Your task to perform on an android device: Search for apple airpods pro on bestbuy, select the first entry, and add it to the cart. Image 0: 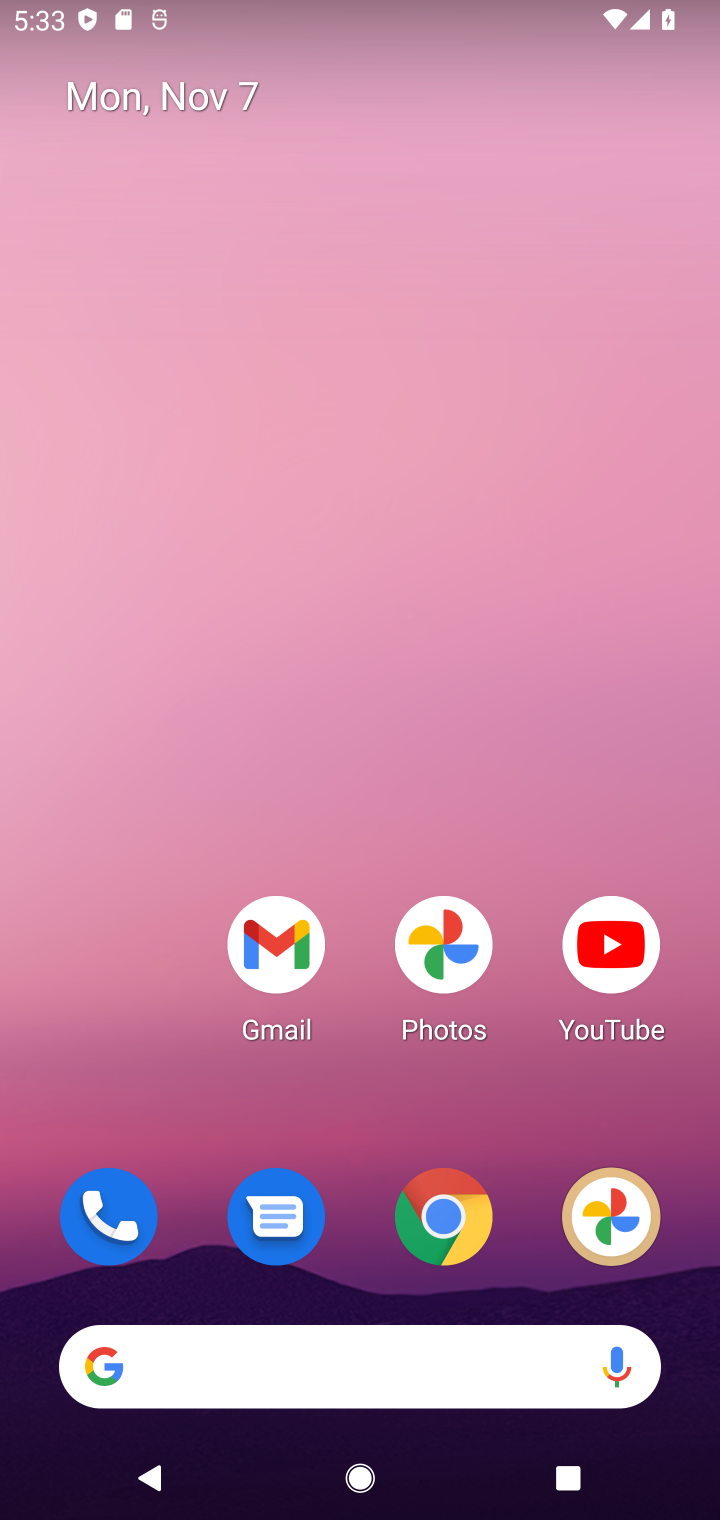
Step 0: drag from (350, 1103) to (413, 112)
Your task to perform on an android device: Search for apple airpods pro on bestbuy, select the first entry, and add it to the cart. Image 1: 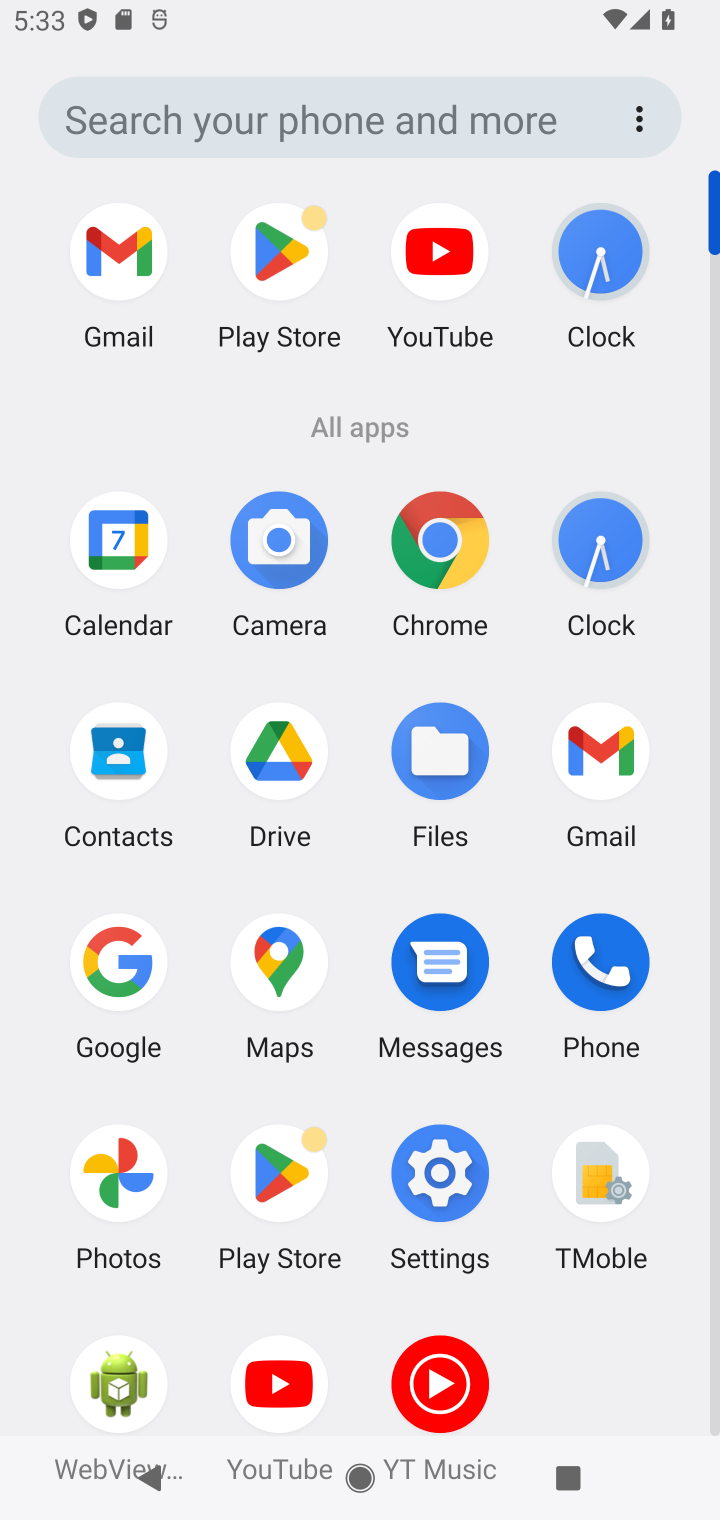
Step 1: click (444, 528)
Your task to perform on an android device: Search for apple airpods pro on bestbuy, select the first entry, and add it to the cart. Image 2: 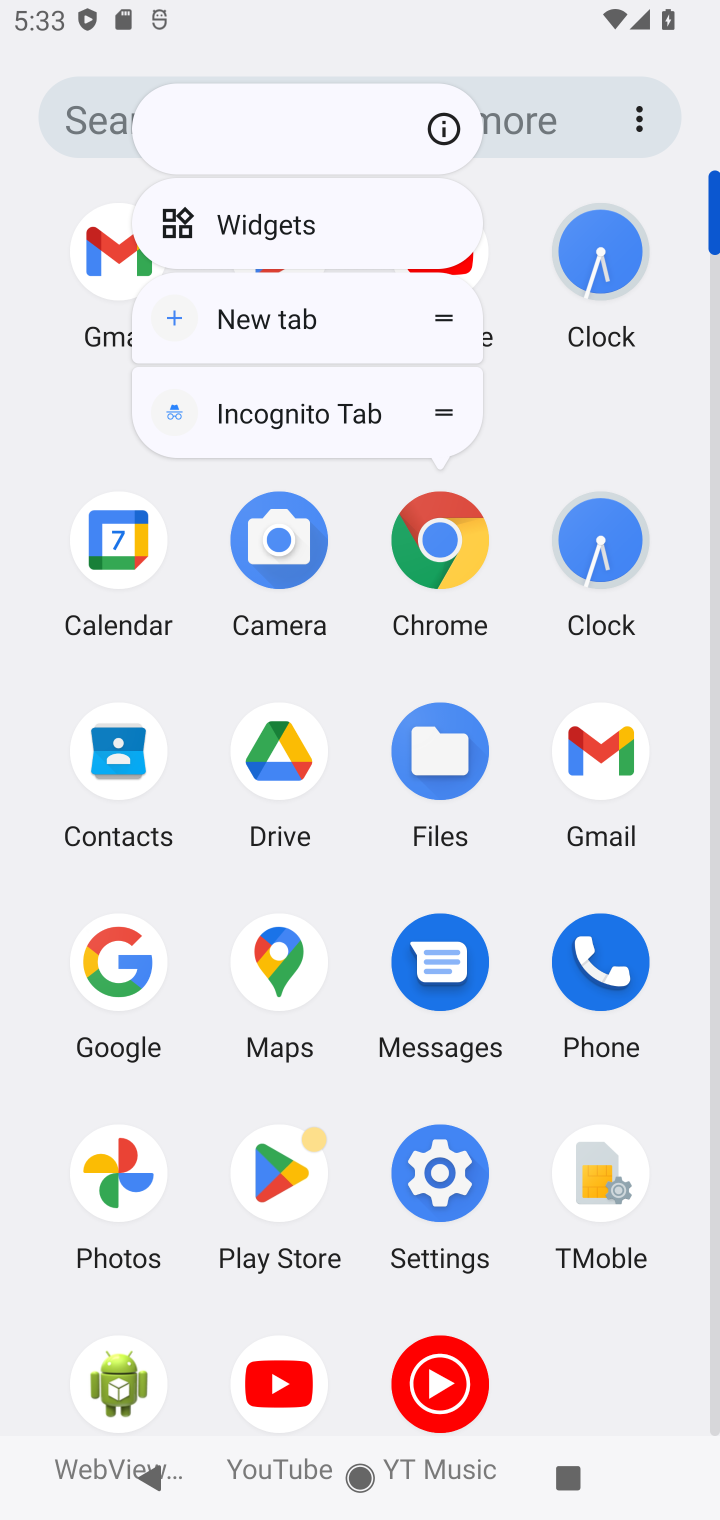
Step 2: click (431, 534)
Your task to perform on an android device: Search for apple airpods pro on bestbuy, select the first entry, and add it to the cart. Image 3: 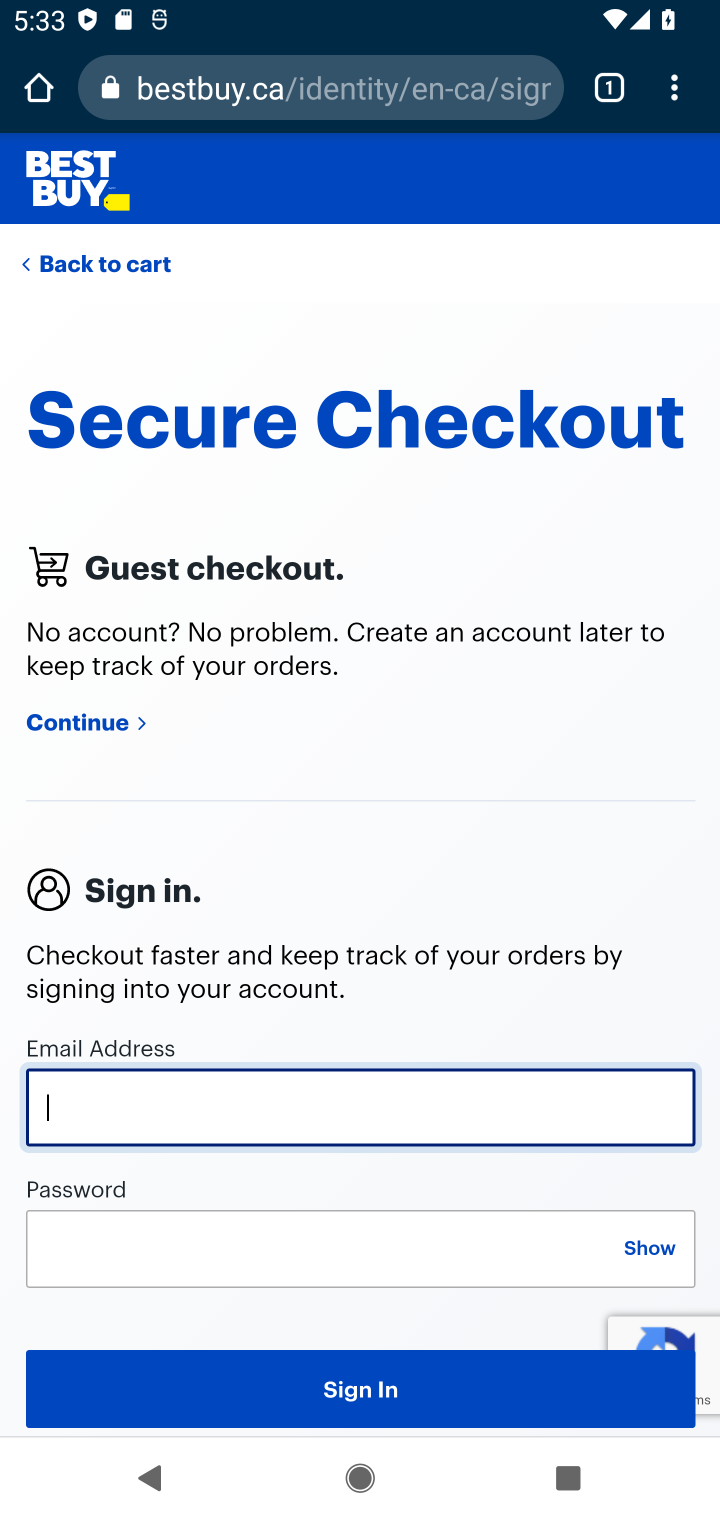
Step 3: click (458, 91)
Your task to perform on an android device: Search for apple airpods pro on bestbuy, select the first entry, and add it to the cart. Image 4: 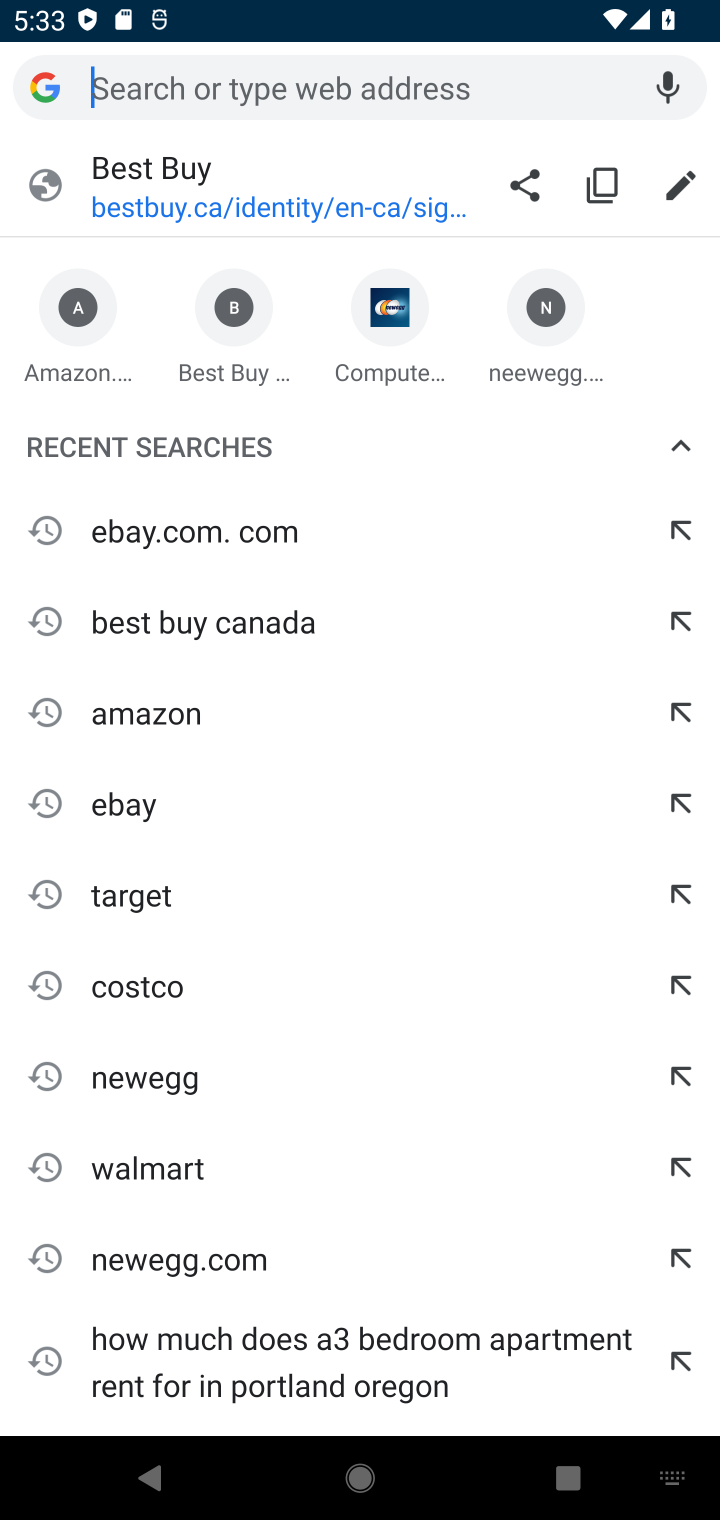
Step 4: type "bestbuy.com"
Your task to perform on an android device: Search for apple airpods pro on bestbuy, select the first entry, and add it to the cart. Image 5: 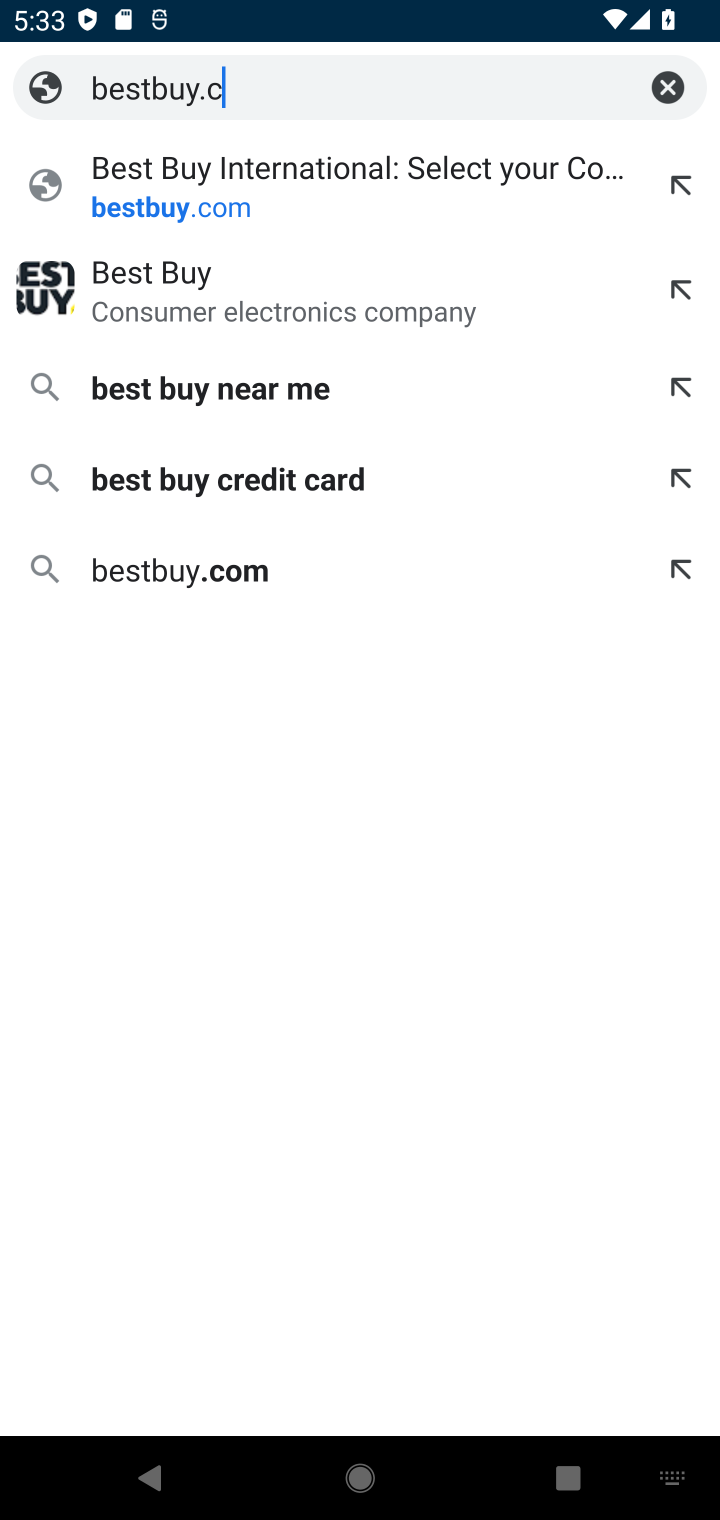
Step 5: press enter
Your task to perform on an android device: Search for apple airpods pro on bestbuy, select the first entry, and add it to the cart. Image 6: 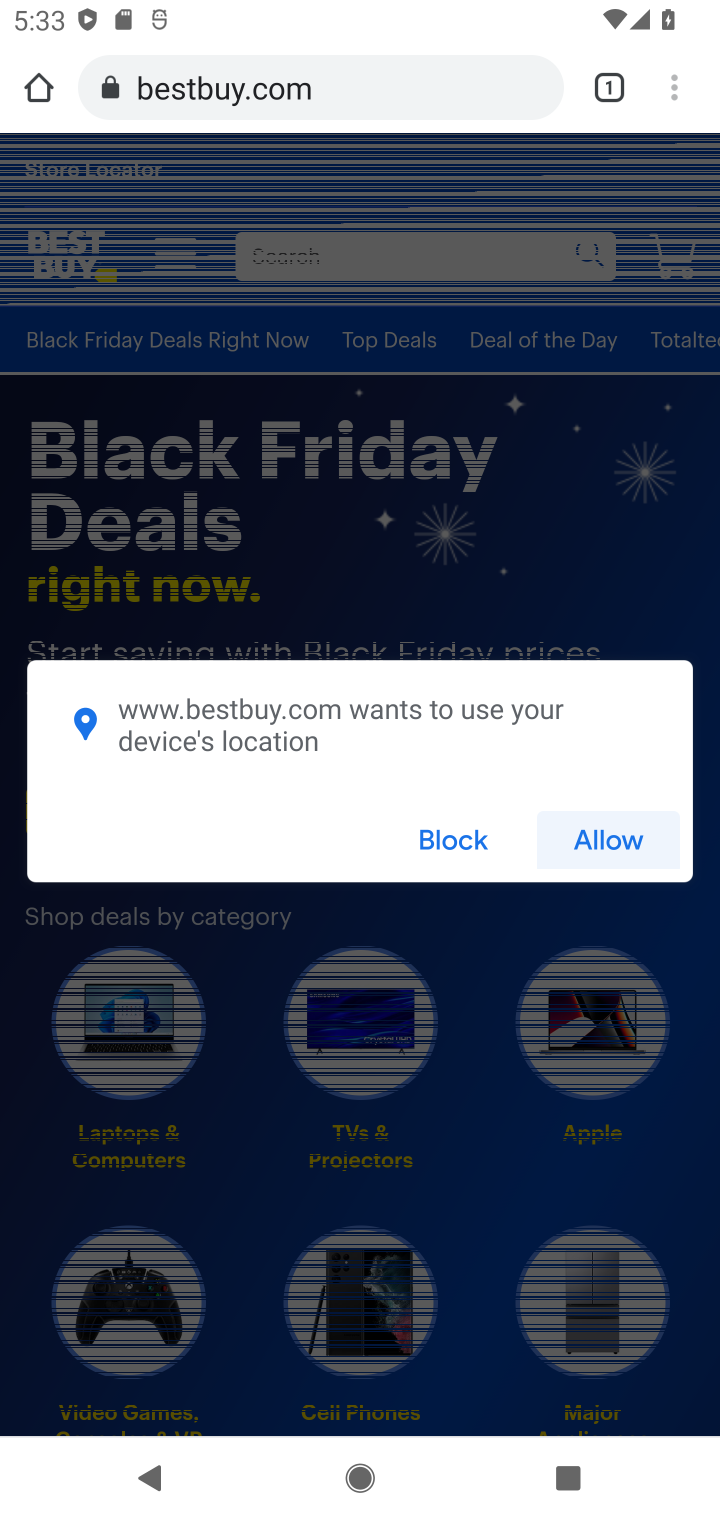
Step 6: click (478, 260)
Your task to perform on an android device: Search for apple airpods pro on bestbuy, select the first entry, and add it to the cart. Image 7: 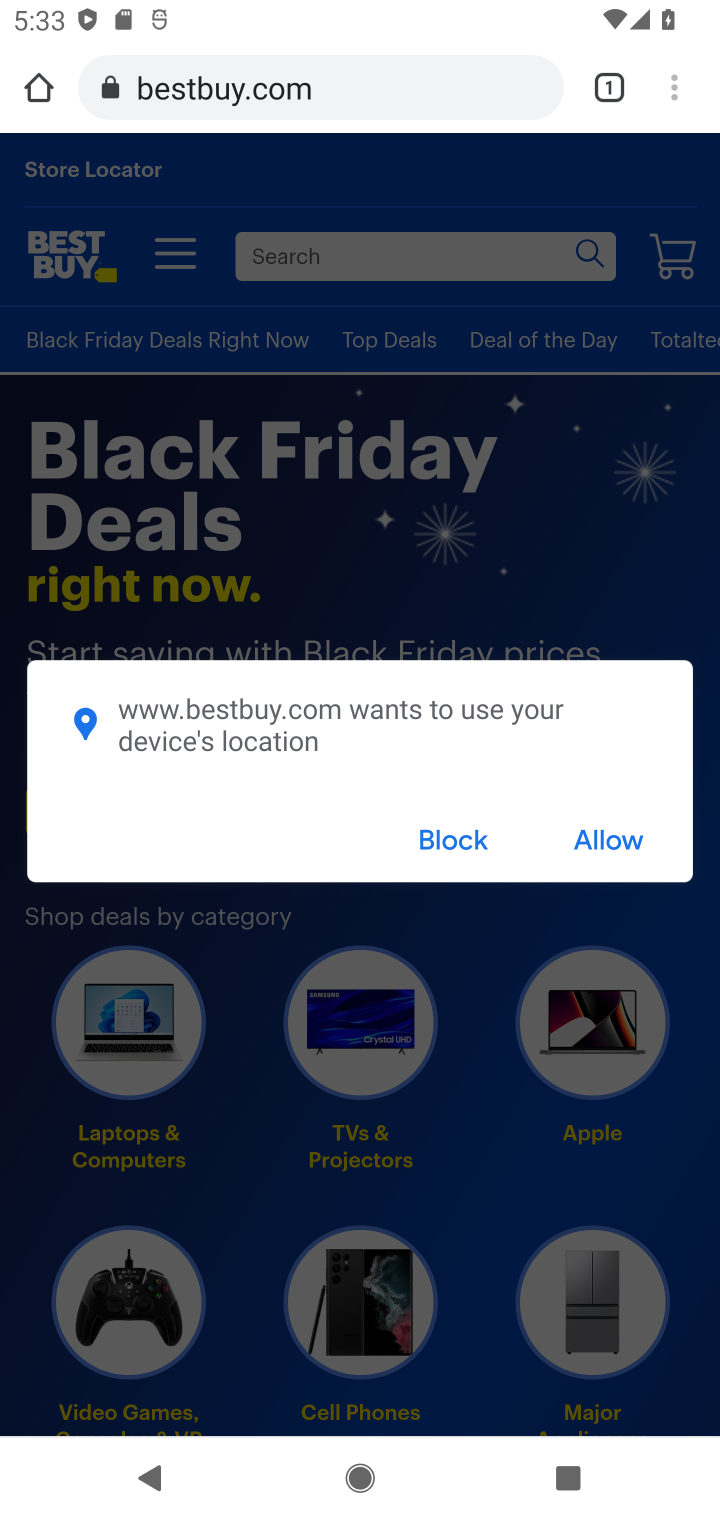
Step 7: click (451, 849)
Your task to perform on an android device: Search for apple airpods pro on bestbuy, select the first entry, and add it to the cart. Image 8: 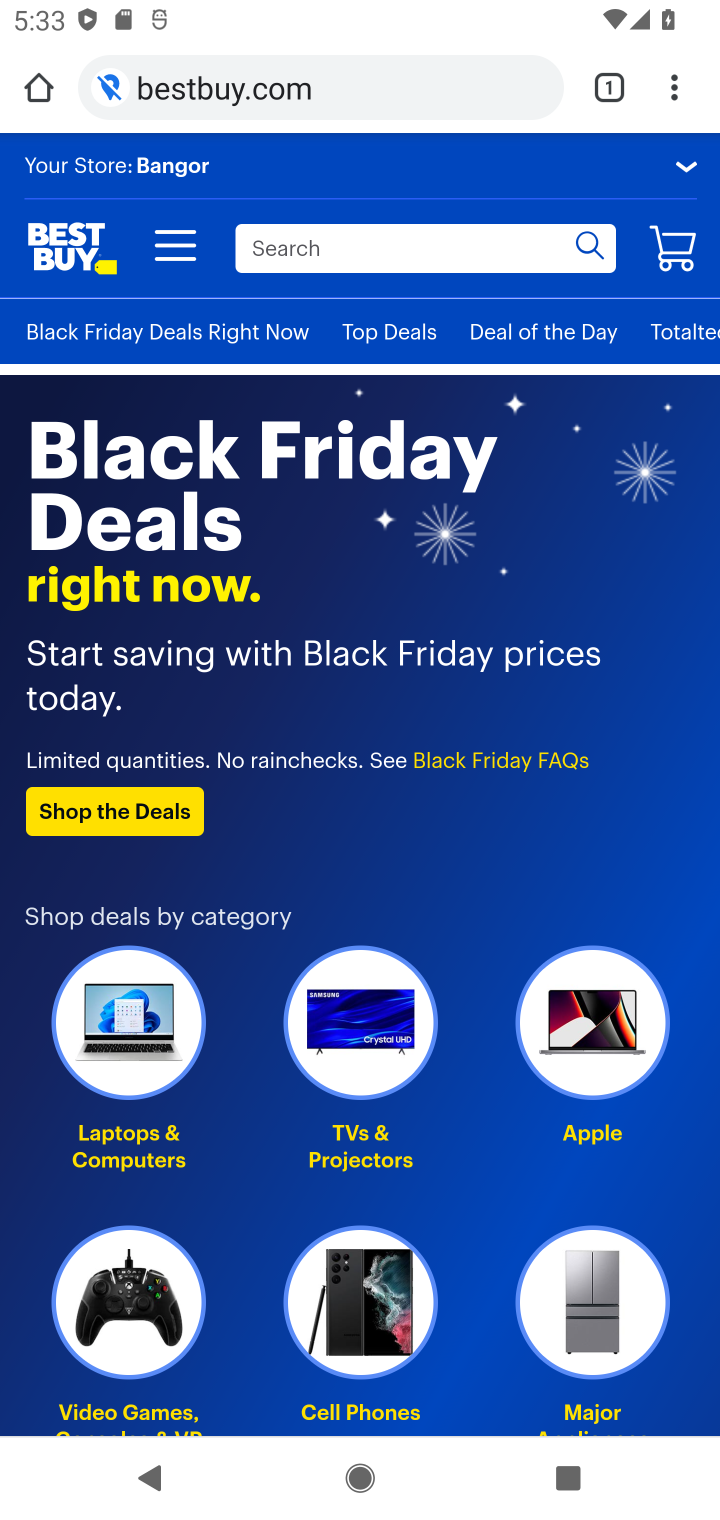
Step 8: click (503, 238)
Your task to perform on an android device: Search for apple airpods pro on bestbuy, select the first entry, and add it to the cart. Image 9: 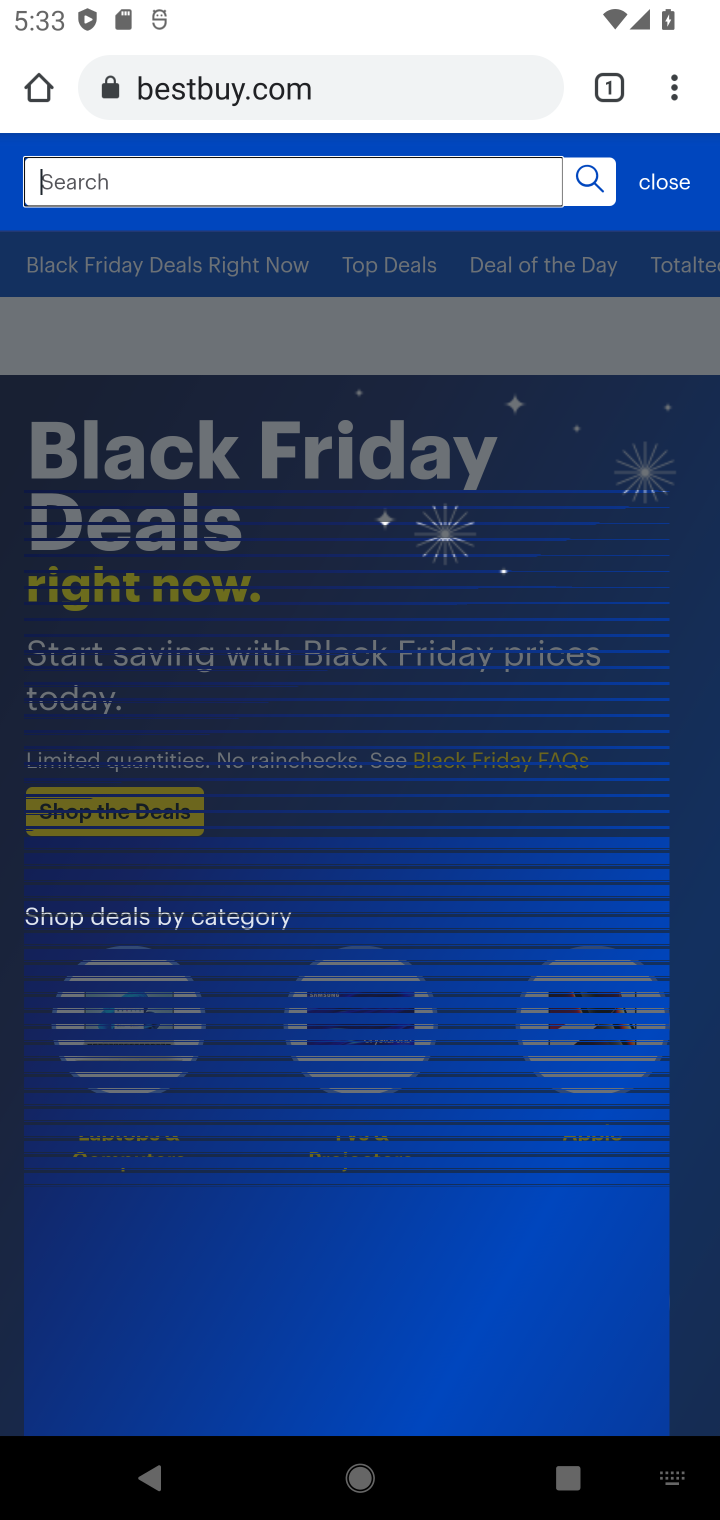
Step 9: type "apple airpods"
Your task to perform on an android device: Search for apple airpods pro on bestbuy, select the first entry, and add it to the cart. Image 10: 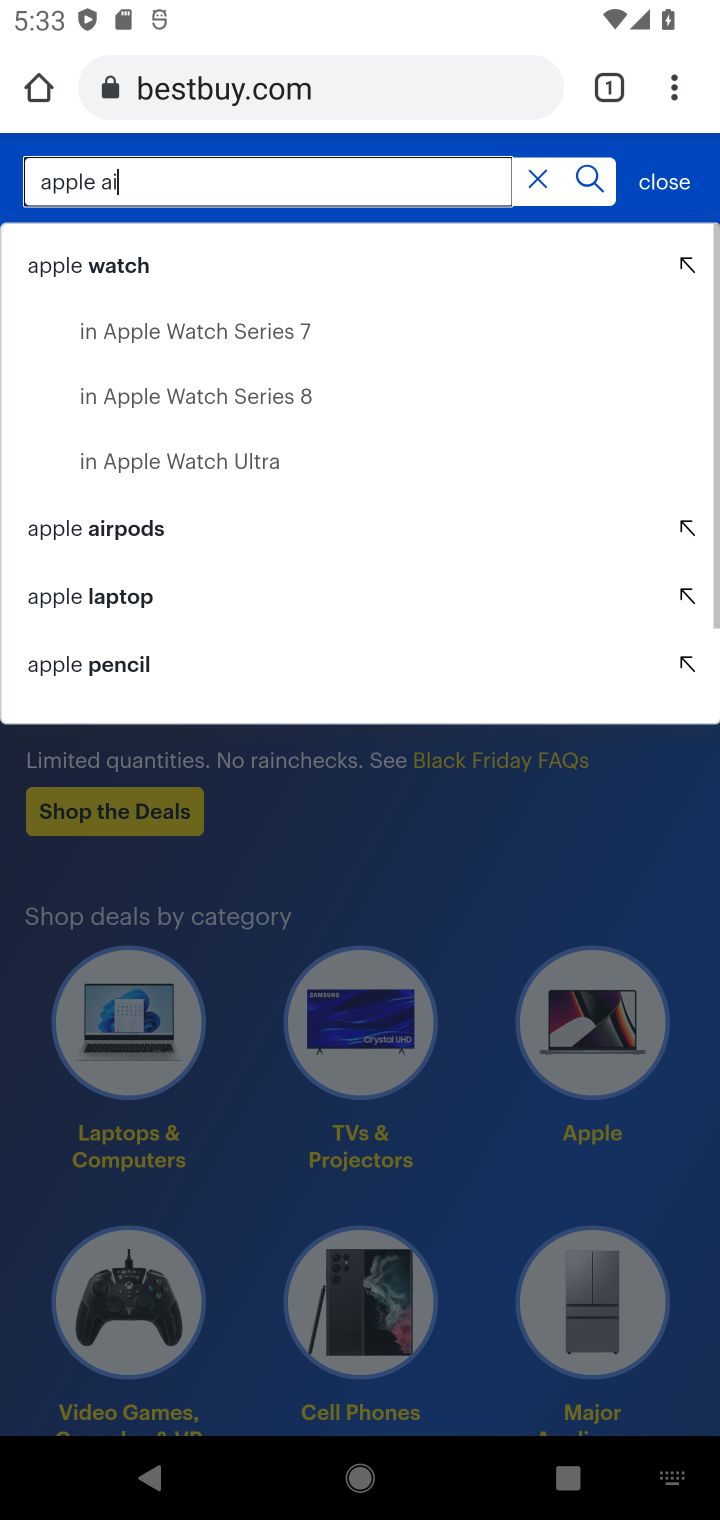
Step 10: press enter
Your task to perform on an android device: Search for apple airpods pro on bestbuy, select the first entry, and add it to the cart. Image 11: 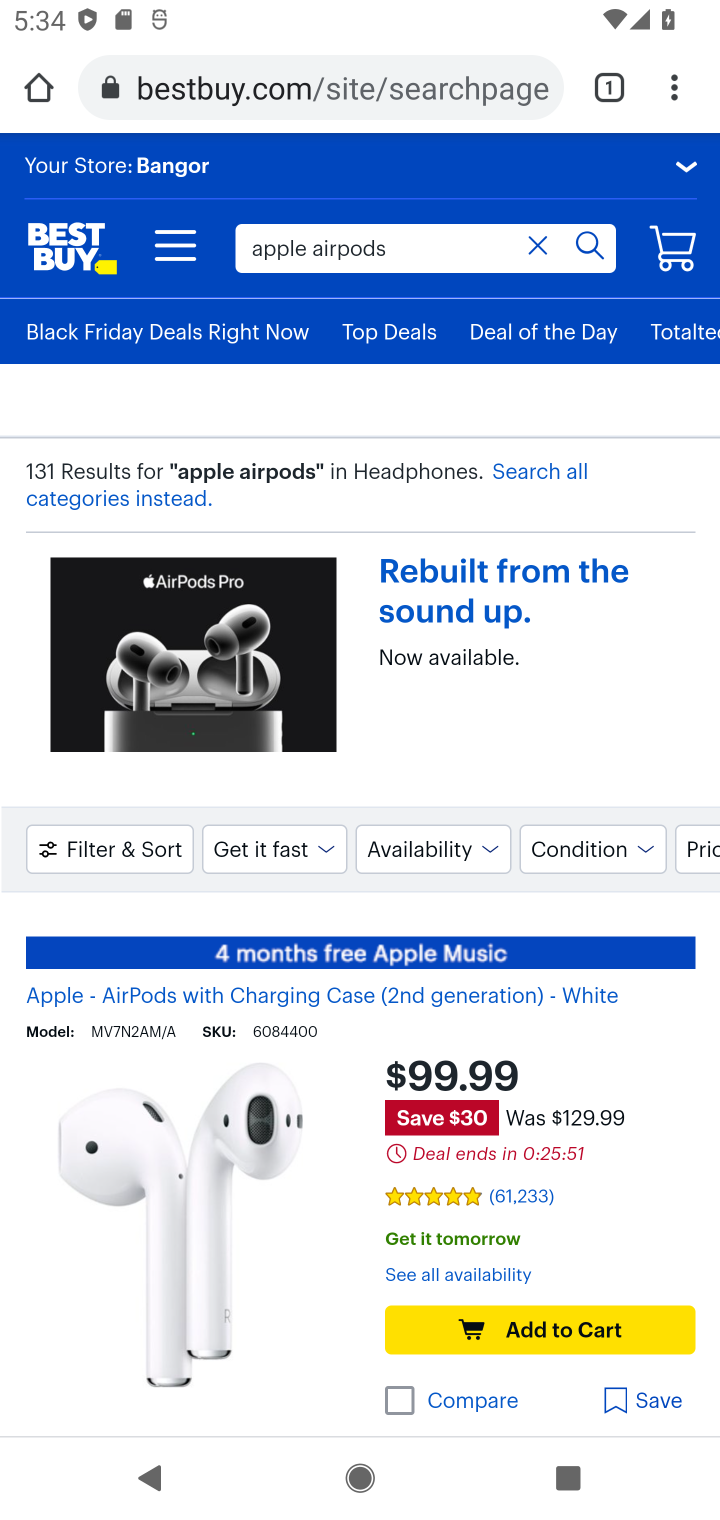
Step 11: click (573, 1317)
Your task to perform on an android device: Search for apple airpods pro on bestbuy, select the first entry, and add it to the cart. Image 12: 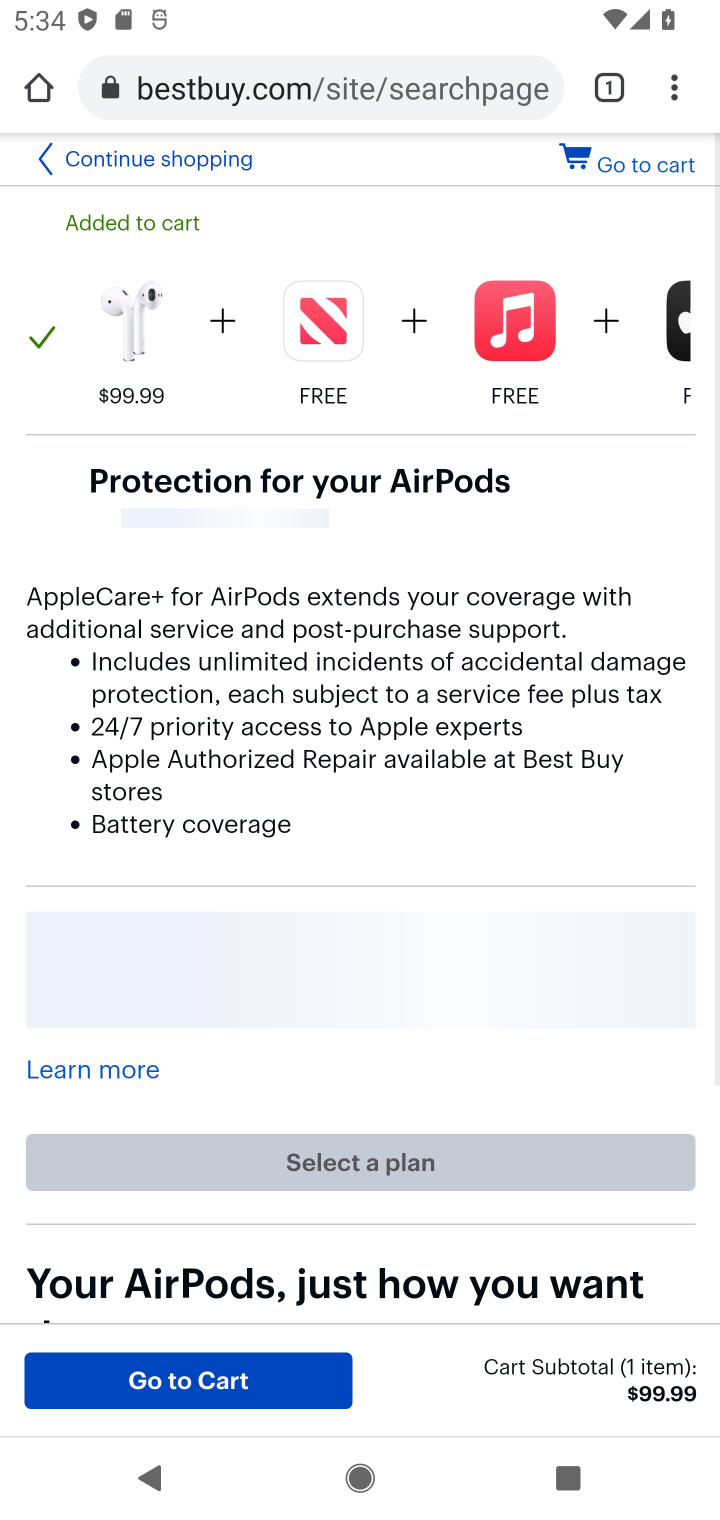
Step 12: task complete